Your task to perform on an android device: see tabs open on other devices in the chrome app Image 0: 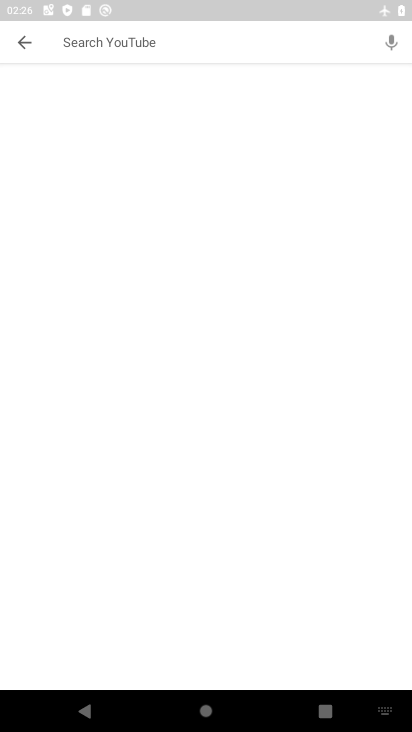
Step 0: press home button
Your task to perform on an android device: see tabs open on other devices in the chrome app Image 1: 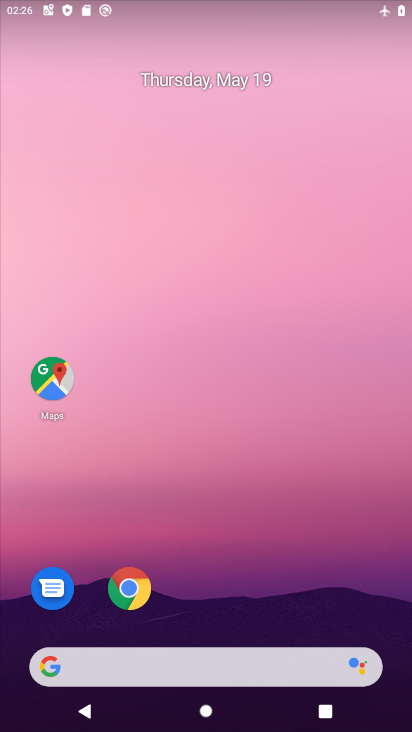
Step 1: click (129, 589)
Your task to perform on an android device: see tabs open on other devices in the chrome app Image 2: 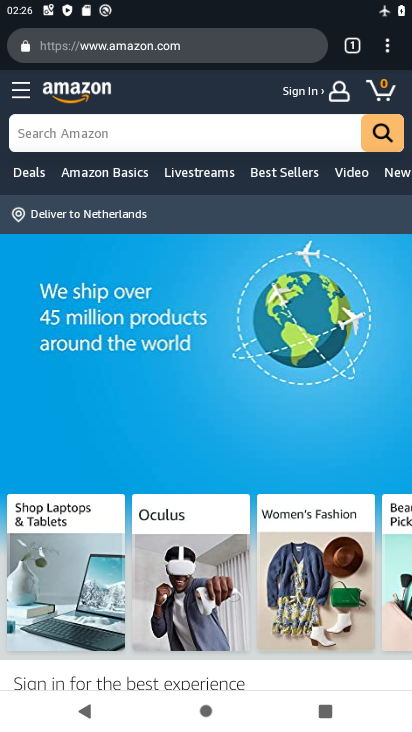
Step 2: click (353, 48)
Your task to perform on an android device: see tabs open on other devices in the chrome app Image 3: 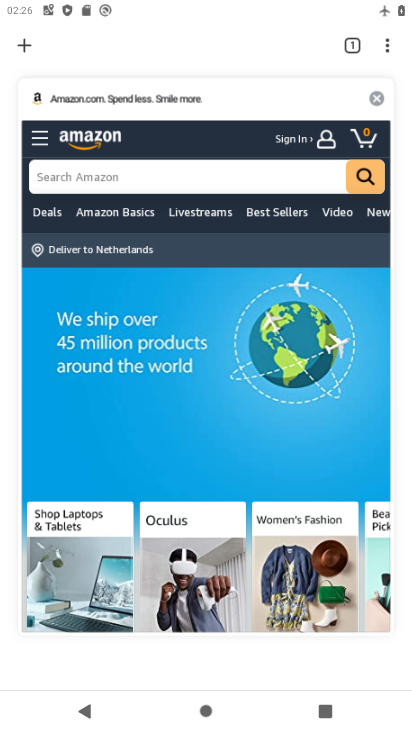
Step 3: task complete